Your task to perform on an android device: Show me the alarms in the clock app Image 0: 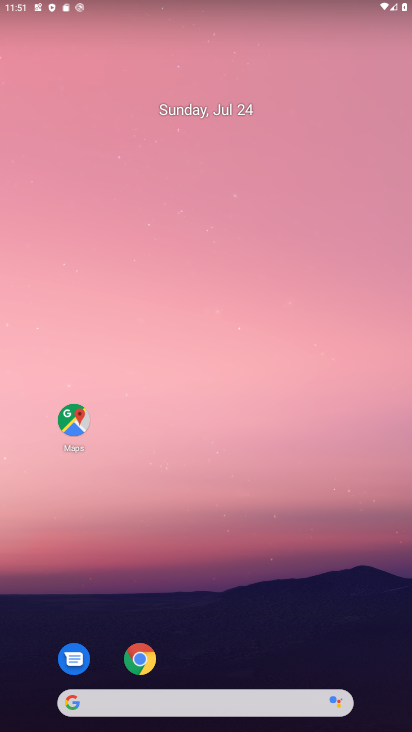
Step 0: drag from (36, 714) to (241, 164)
Your task to perform on an android device: Show me the alarms in the clock app Image 1: 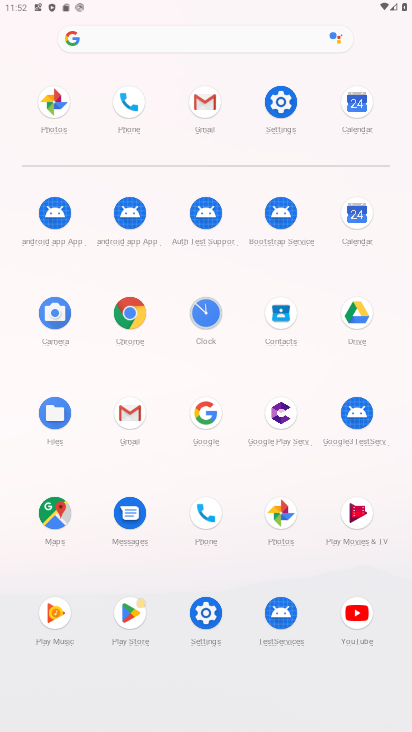
Step 1: click (197, 315)
Your task to perform on an android device: Show me the alarms in the clock app Image 2: 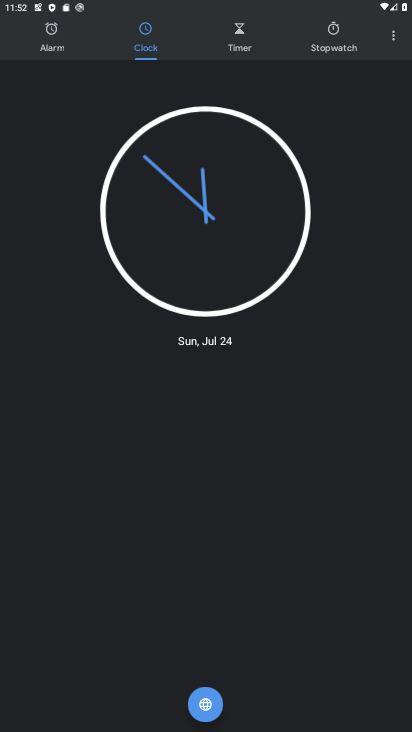
Step 2: click (49, 41)
Your task to perform on an android device: Show me the alarms in the clock app Image 3: 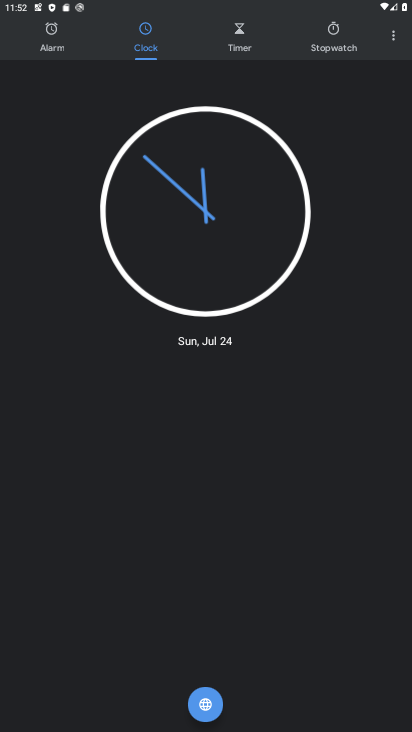
Step 3: task complete